Your task to perform on an android device: allow cookies in the chrome app Image 0: 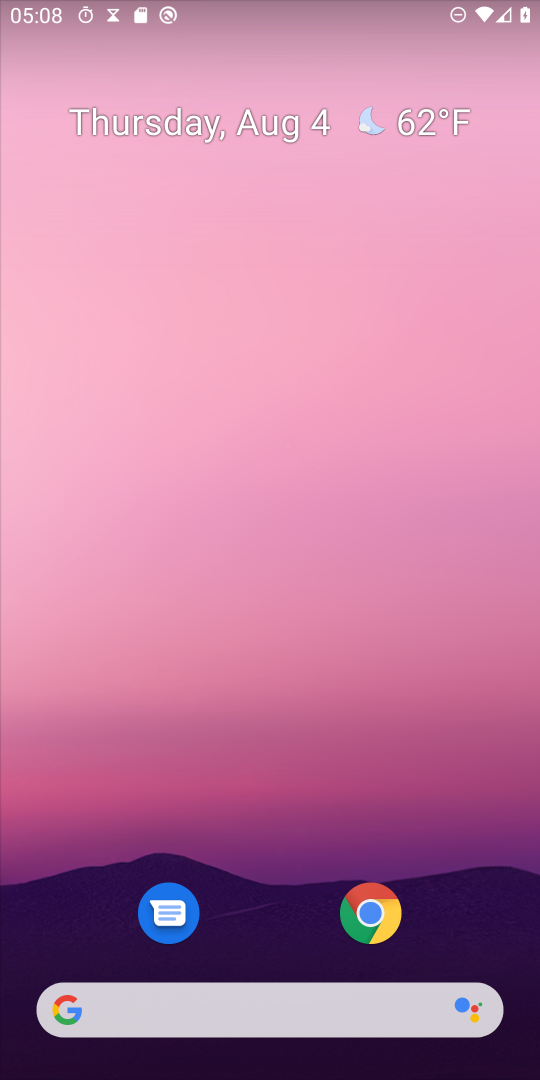
Step 0: drag from (392, 787) to (437, 114)
Your task to perform on an android device: allow cookies in the chrome app Image 1: 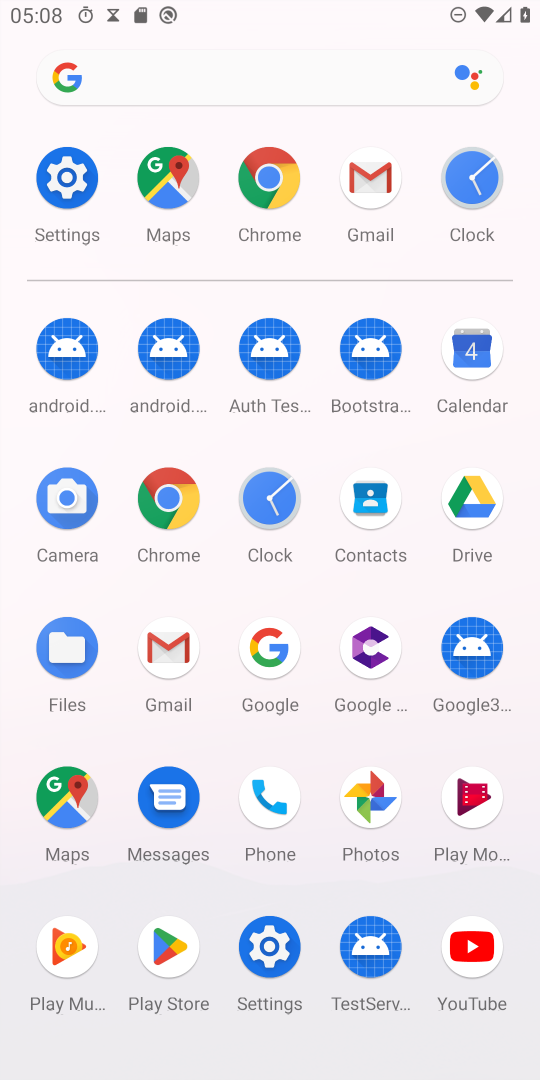
Step 1: click (168, 504)
Your task to perform on an android device: allow cookies in the chrome app Image 2: 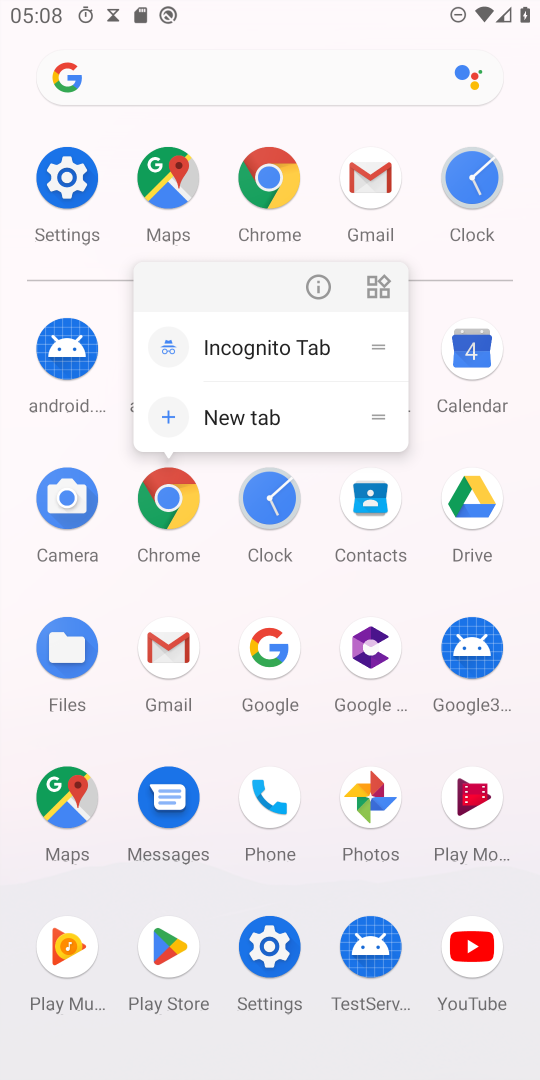
Step 2: click (178, 492)
Your task to perform on an android device: allow cookies in the chrome app Image 3: 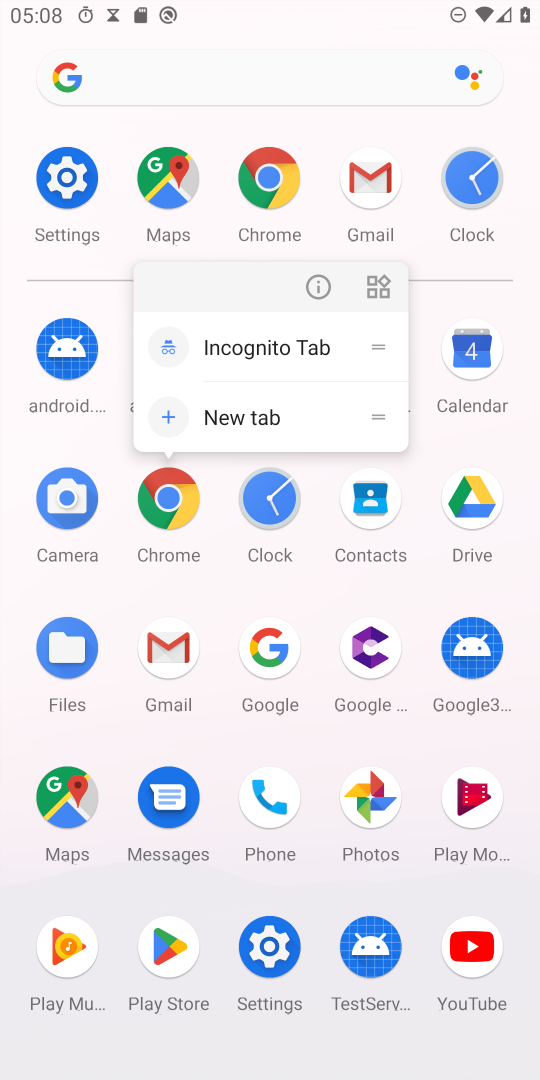
Step 3: click (178, 492)
Your task to perform on an android device: allow cookies in the chrome app Image 4: 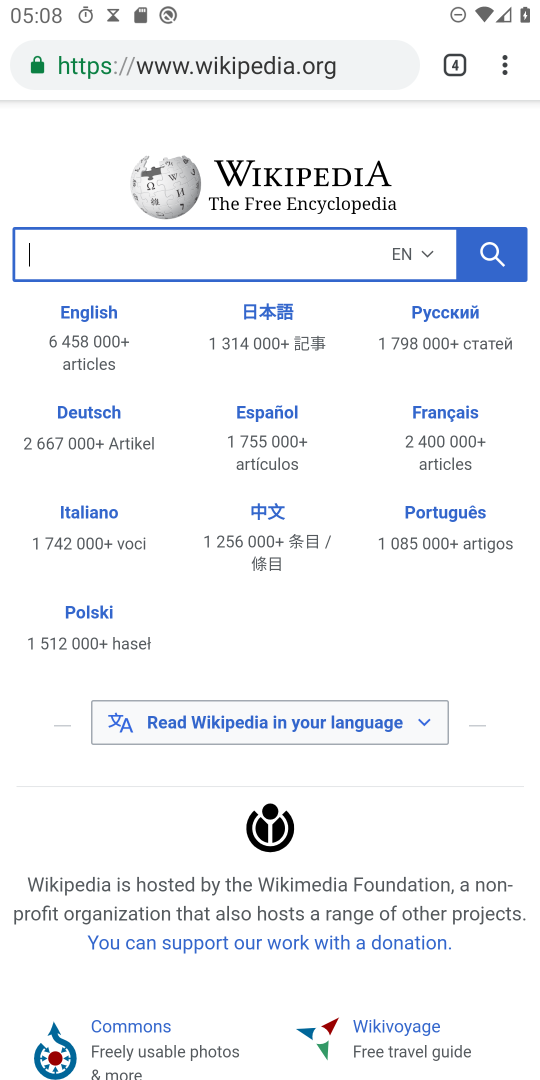
Step 4: drag from (499, 60) to (328, 735)
Your task to perform on an android device: allow cookies in the chrome app Image 5: 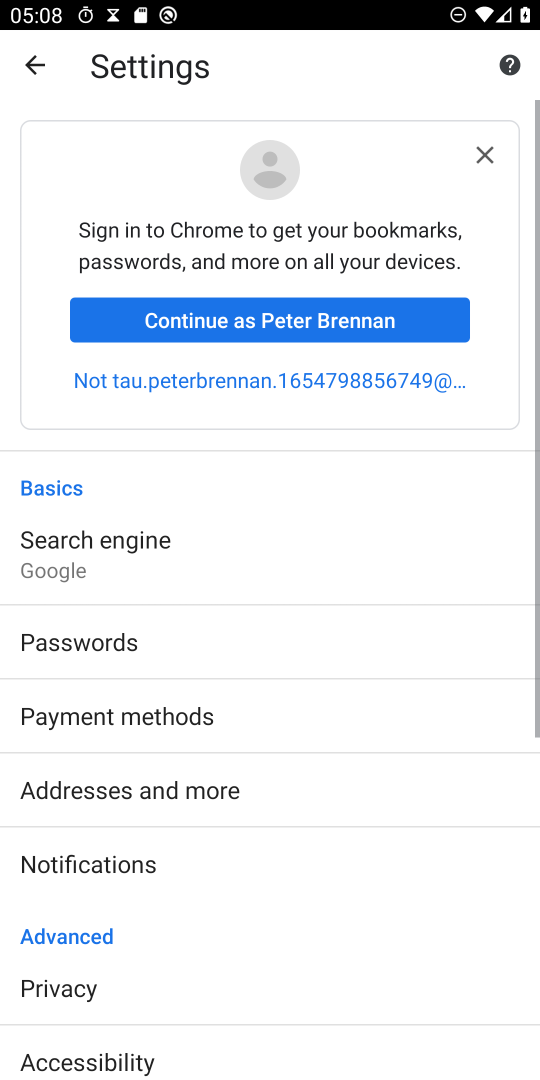
Step 5: drag from (257, 955) to (282, 122)
Your task to perform on an android device: allow cookies in the chrome app Image 6: 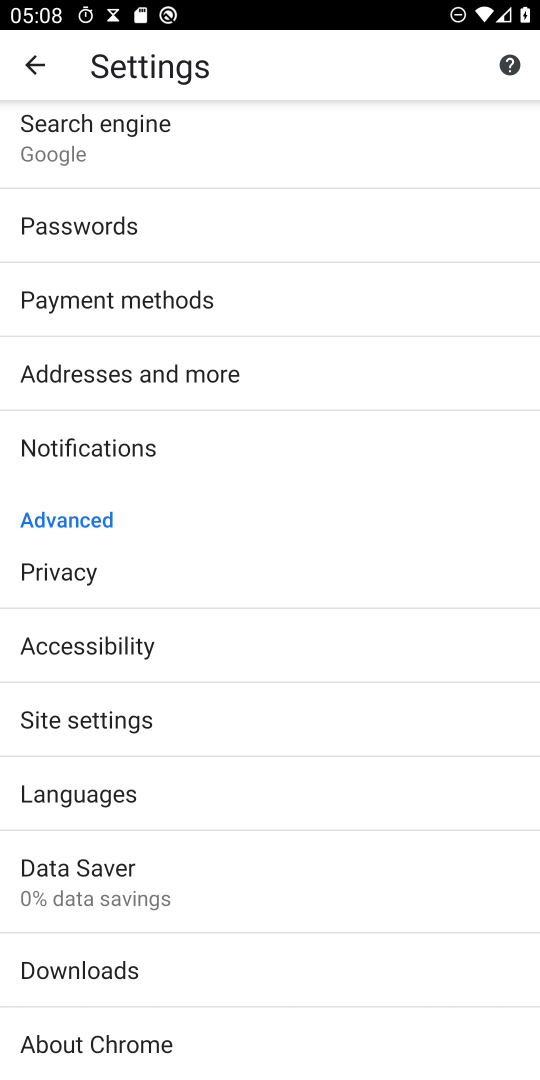
Step 6: click (123, 589)
Your task to perform on an android device: allow cookies in the chrome app Image 7: 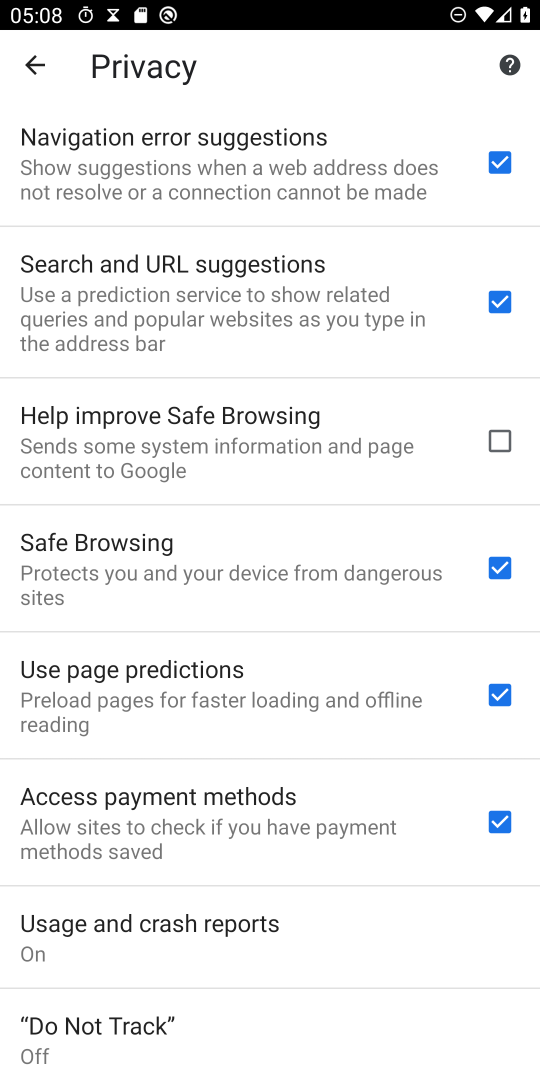
Step 7: press back button
Your task to perform on an android device: allow cookies in the chrome app Image 8: 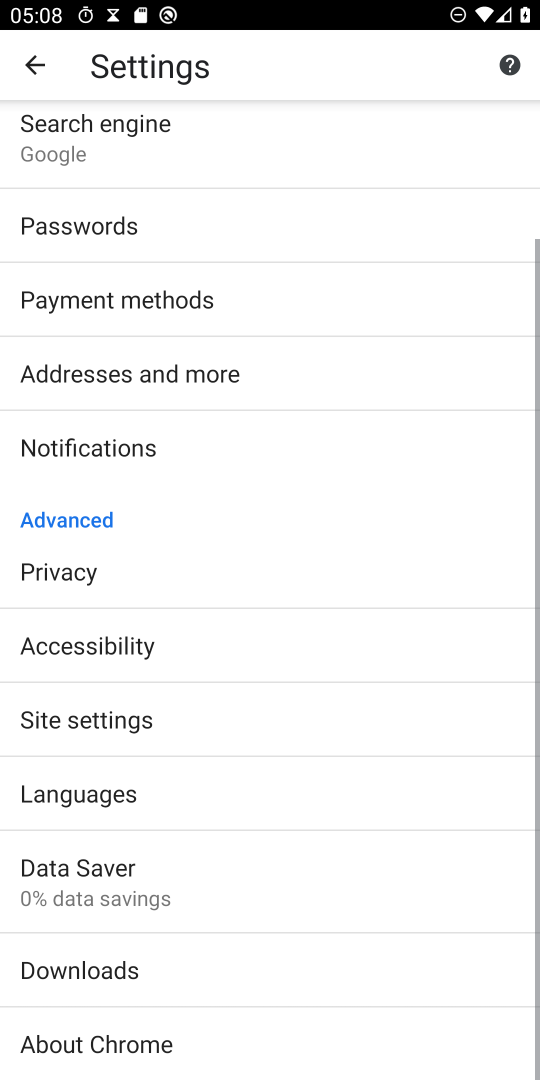
Step 8: click (138, 719)
Your task to perform on an android device: allow cookies in the chrome app Image 9: 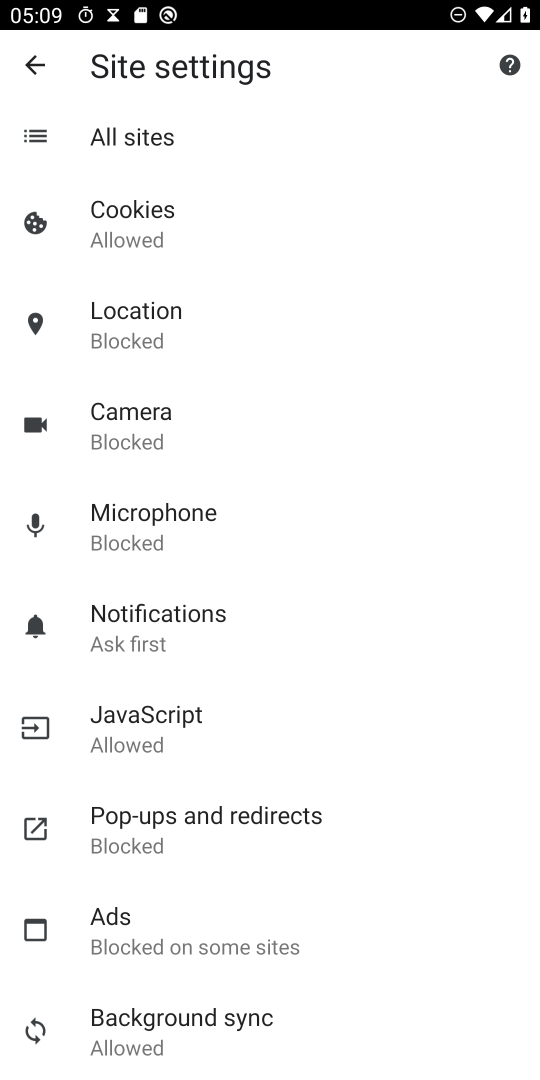
Step 9: click (166, 219)
Your task to perform on an android device: allow cookies in the chrome app Image 10: 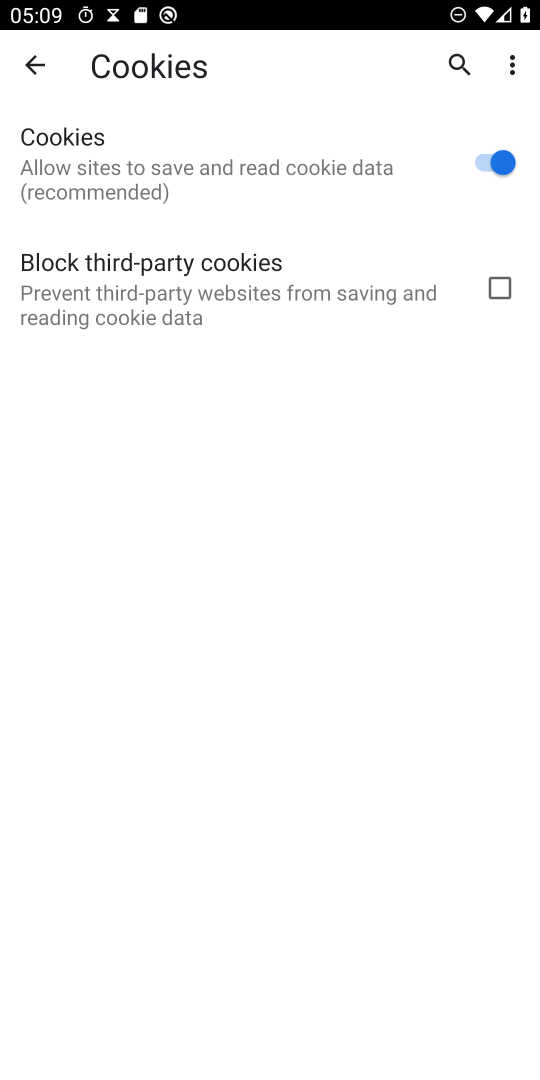
Step 10: task complete